Your task to perform on an android device: turn on javascript in the chrome app Image 0: 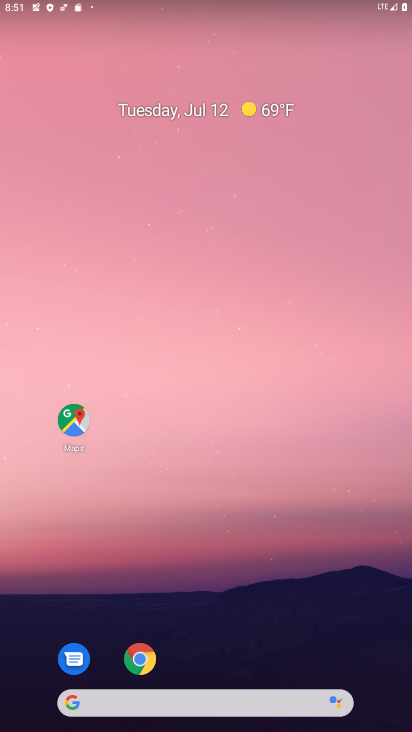
Step 0: click (136, 654)
Your task to perform on an android device: turn on javascript in the chrome app Image 1: 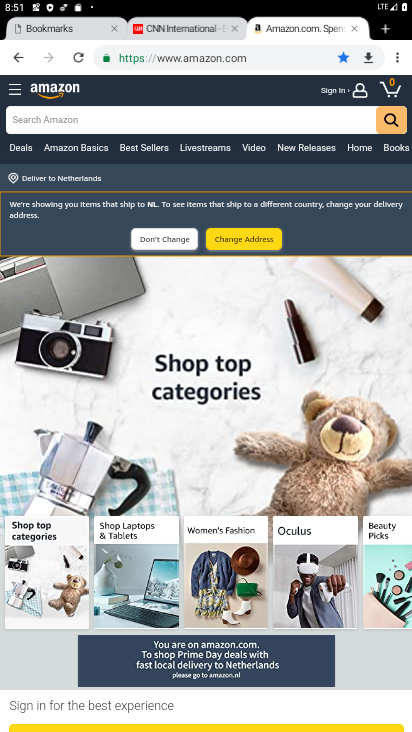
Step 1: click (392, 63)
Your task to perform on an android device: turn on javascript in the chrome app Image 2: 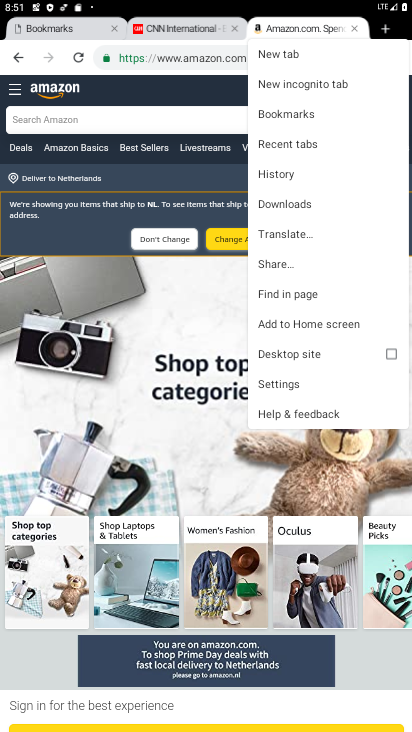
Step 2: click (282, 379)
Your task to perform on an android device: turn on javascript in the chrome app Image 3: 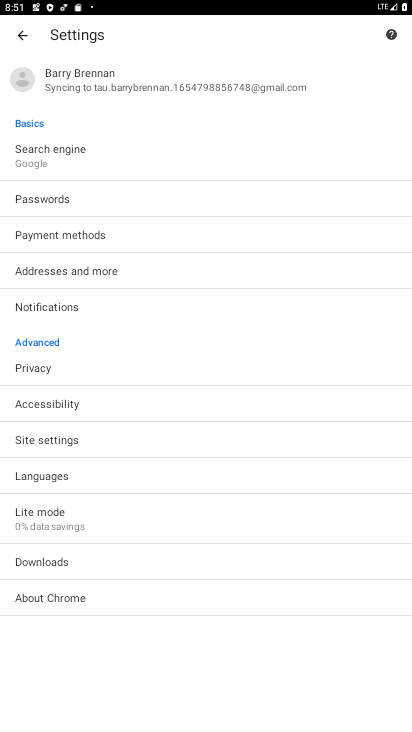
Step 3: click (51, 442)
Your task to perform on an android device: turn on javascript in the chrome app Image 4: 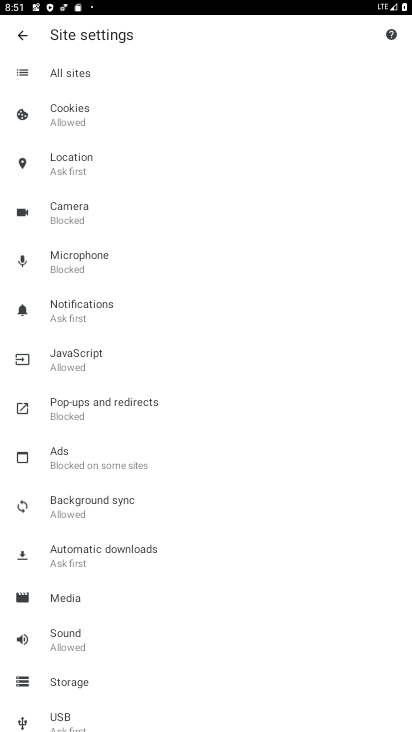
Step 4: click (80, 349)
Your task to perform on an android device: turn on javascript in the chrome app Image 5: 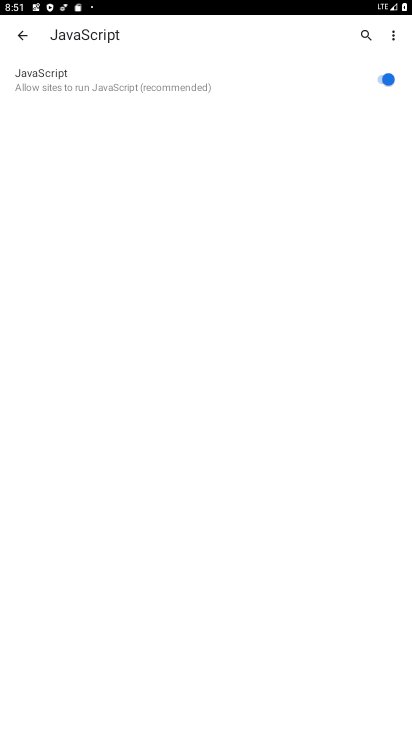
Step 5: task complete